Your task to perform on an android device: open app "Spotify: Music and Podcasts" (install if not already installed) and go to login screen Image 0: 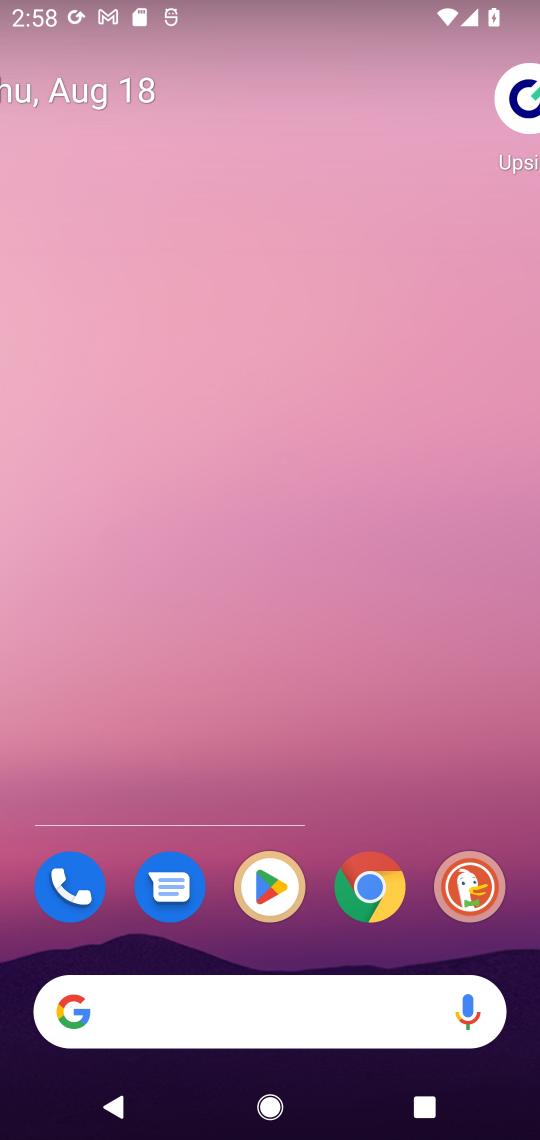
Step 0: press home button
Your task to perform on an android device: open app "Spotify: Music and Podcasts" (install if not already installed) and go to login screen Image 1: 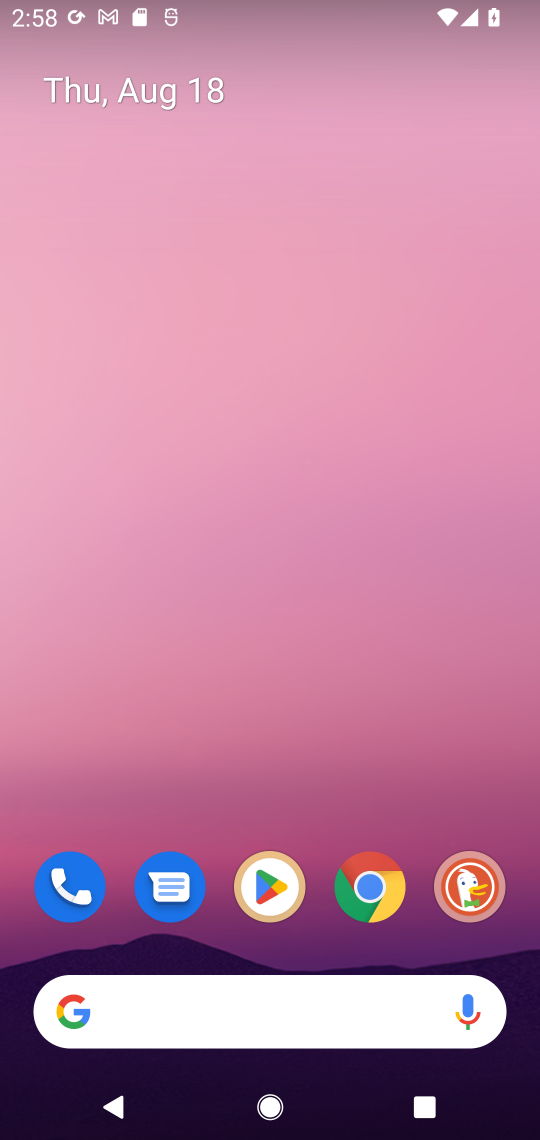
Step 1: press home button
Your task to perform on an android device: open app "Spotify: Music and Podcasts" (install if not already installed) and go to login screen Image 2: 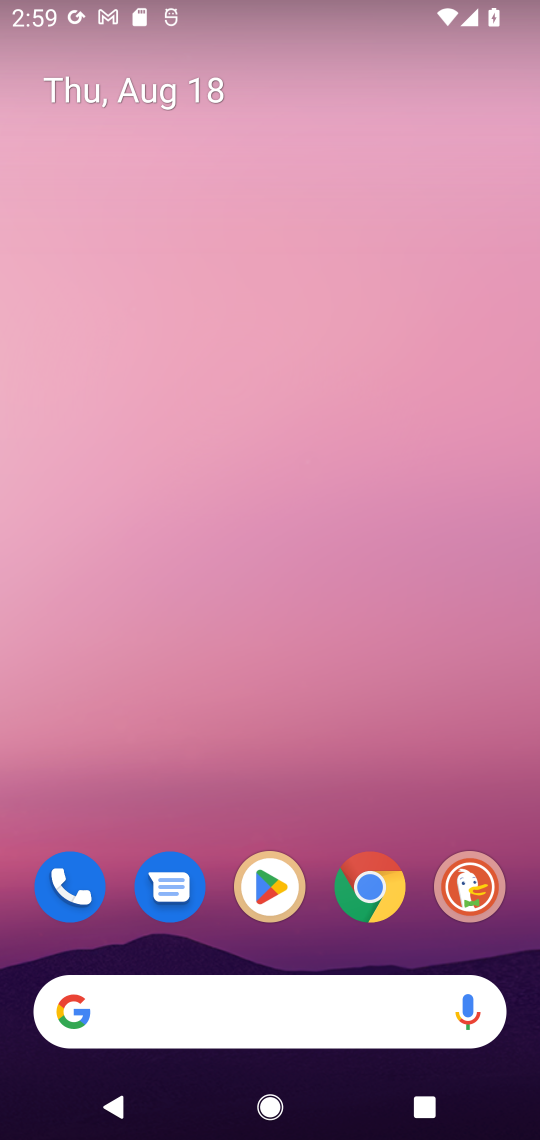
Step 2: drag from (314, 845) to (365, 20)
Your task to perform on an android device: open app "Spotify: Music and Podcasts" (install if not already installed) and go to login screen Image 3: 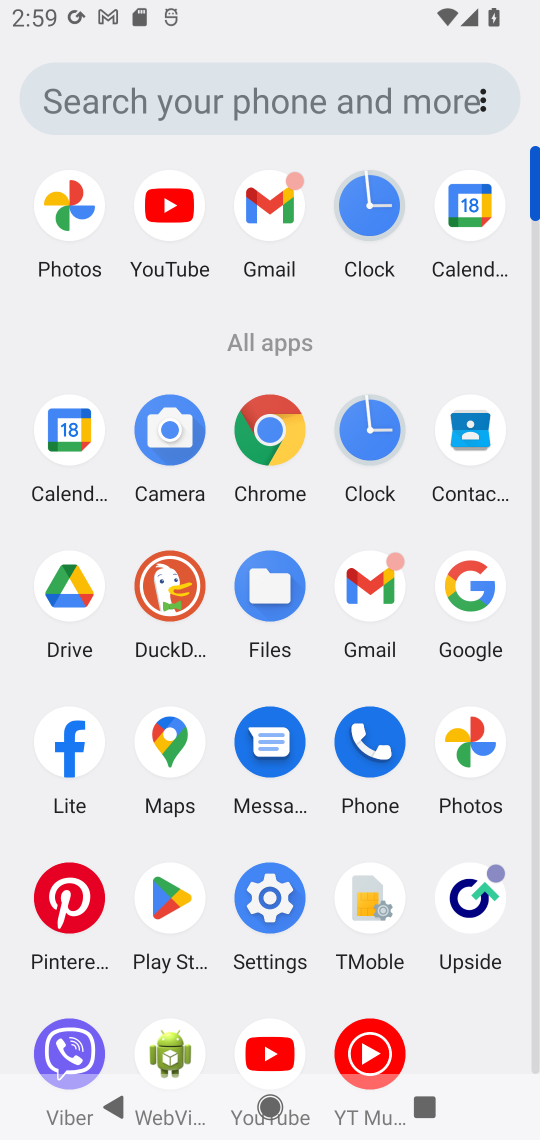
Step 3: click (166, 894)
Your task to perform on an android device: open app "Spotify: Music and Podcasts" (install if not already installed) and go to login screen Image 4: 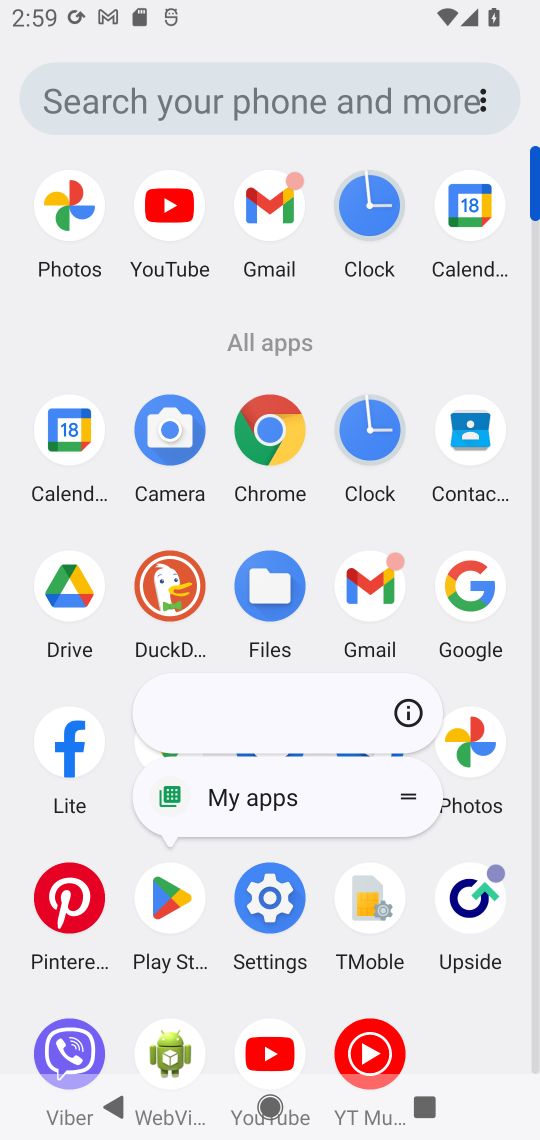
Step 4: click (169, 896)
Your task to perform on an android device: open app "Spotify: Music and Podcasts" (install if not already installed) and go to login screen Image 5: 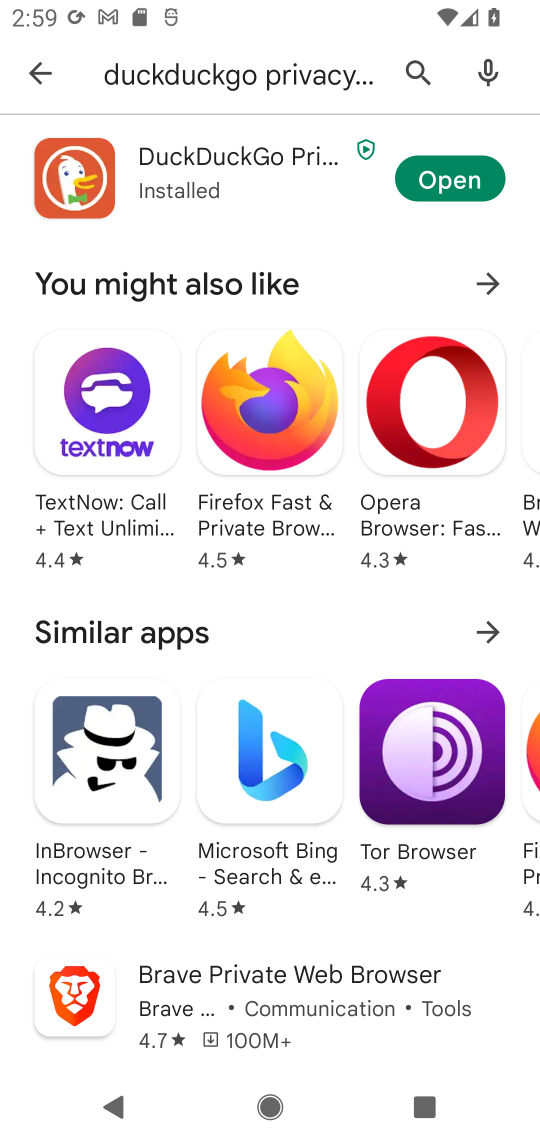
Step 5: click (418, 63)
Your task to perform on an android device: open app "Spotify: Music and Podcasts" (install if not already installed) and go to login screen Image 6: 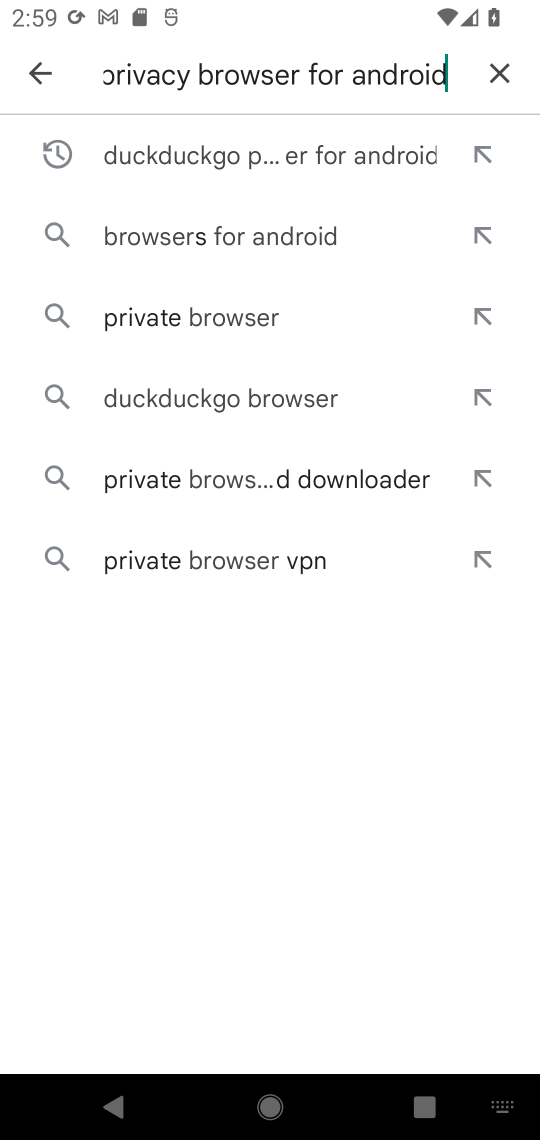
Step 6: click (500, 81)
Your task to perform on an android device: open app "Spotify: Music and Podcasts" (install if not already installed) and go to login screen Image 7: 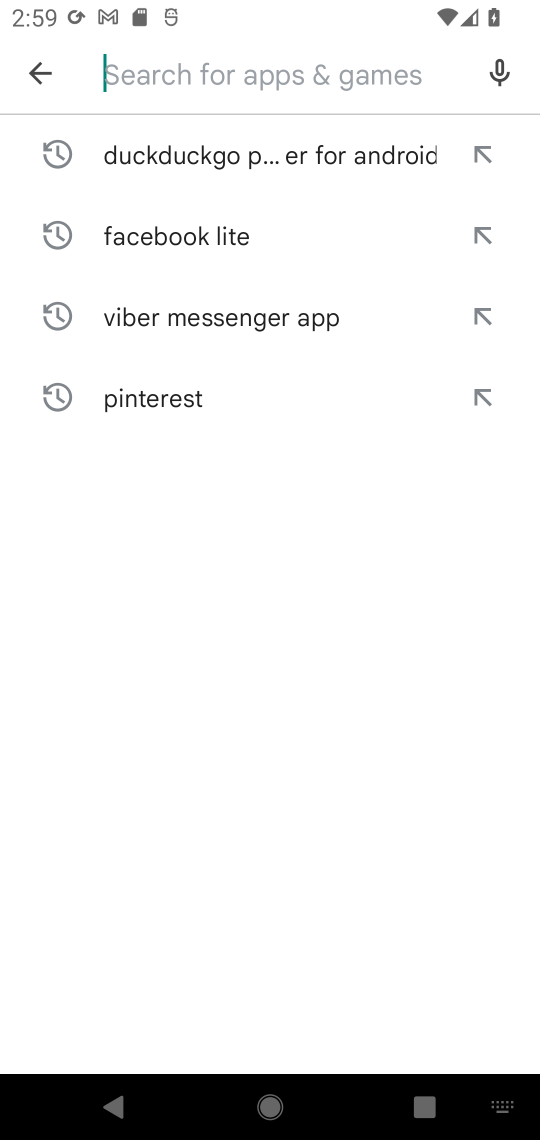
Step 7: type "Spotify: Music and Podcasts"
Your task to perform on an android device: open app "Spotify: Music and Podcasts" (install if not already installed) and go to login screen Image 8: 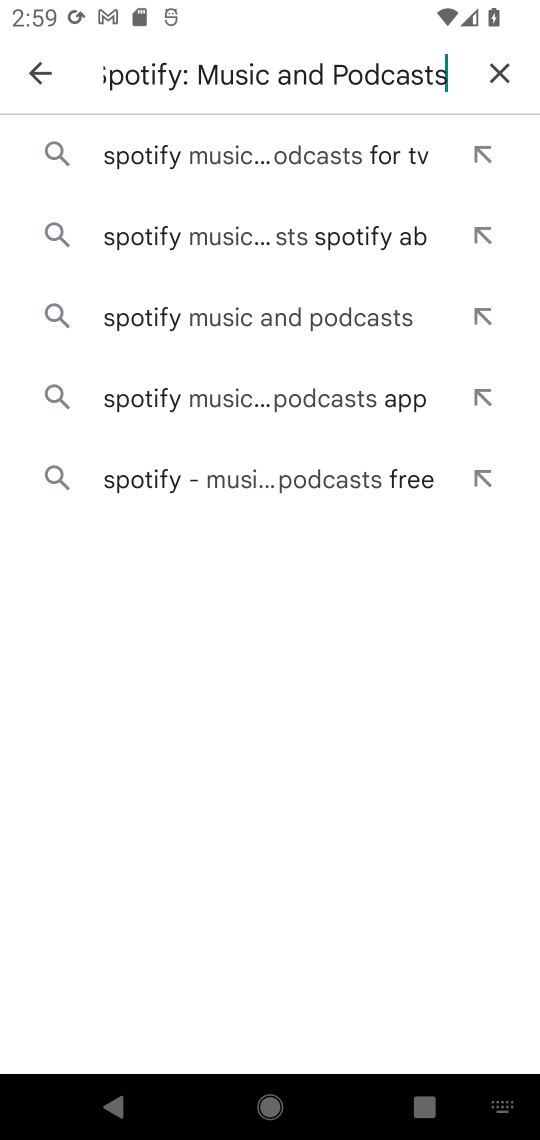
Step 8: click (338, 308)
Your task to perform on an android device: open app "Spotify: Music and Podcasts" (install if not already installed) and go to login screen Image 9: 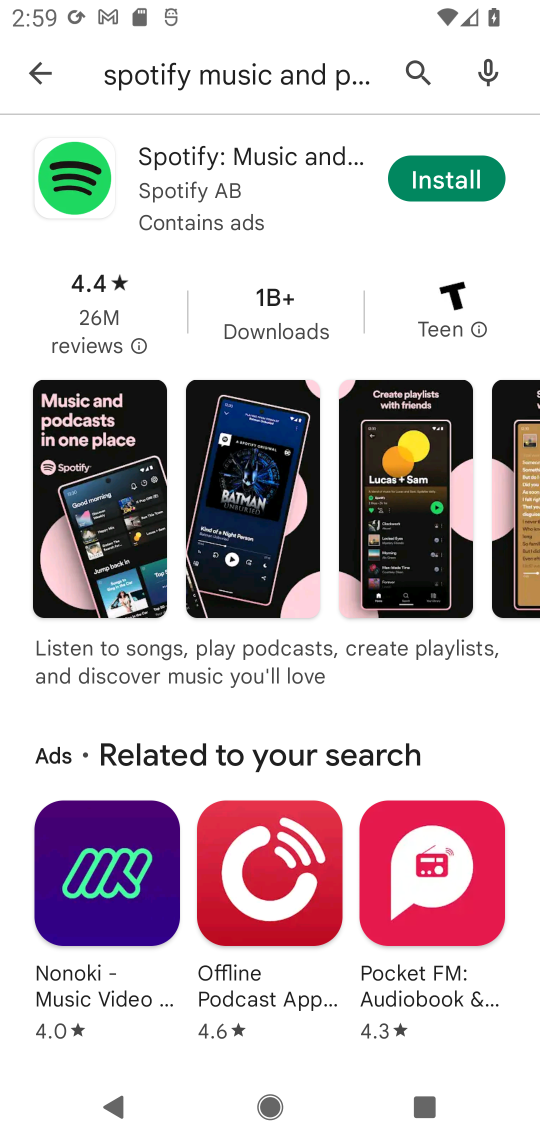
Step 9: click (446, 174)
Your task to perform on an android device: open app "Spotify: Music and Podcasts" (install if not already installed) and go to login screen Image 10: 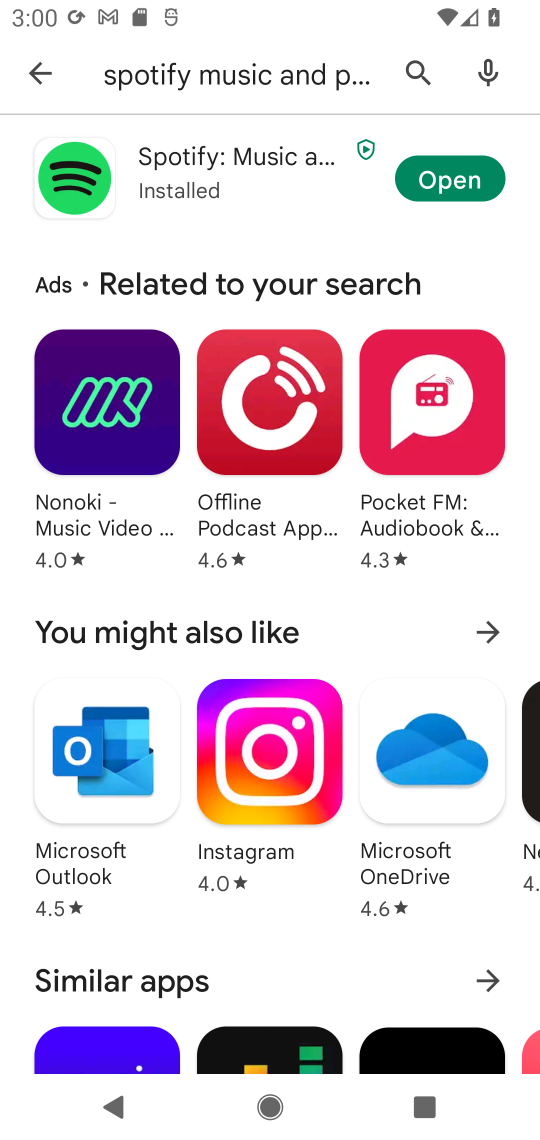
Step 10: click (446, 174)
Your task to perform on an android device: open app "Spotify: Music and Podcasts" (install if not already installed) and go to login screen Image 11: 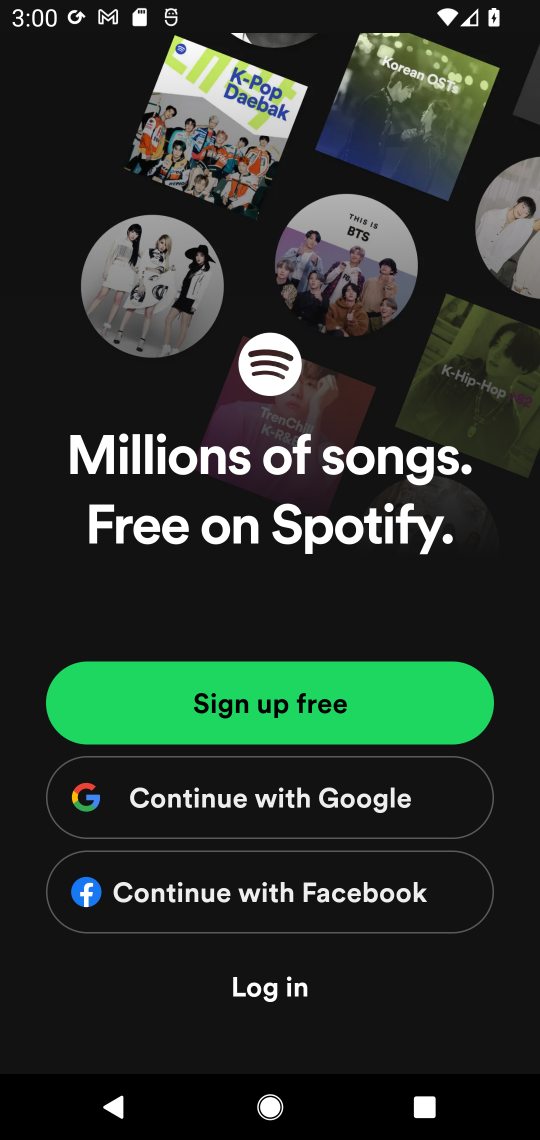
Step 11: click (394, 783)
Your task to perform on an android device: open app "Spotify: Music and Podcasts" (install if not already installed) and go to login screen Image 12: 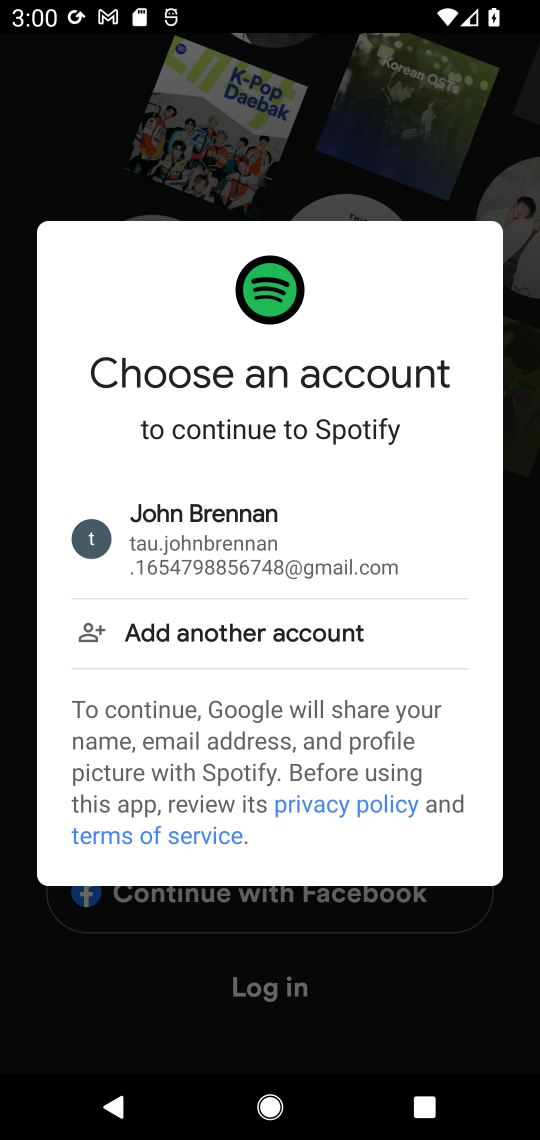
Step 12: click (169, 541)
Your task to perform on an android device: open app "Spotify: Music and Podcasts" (install if not already installed) and go to login screen Image 13: 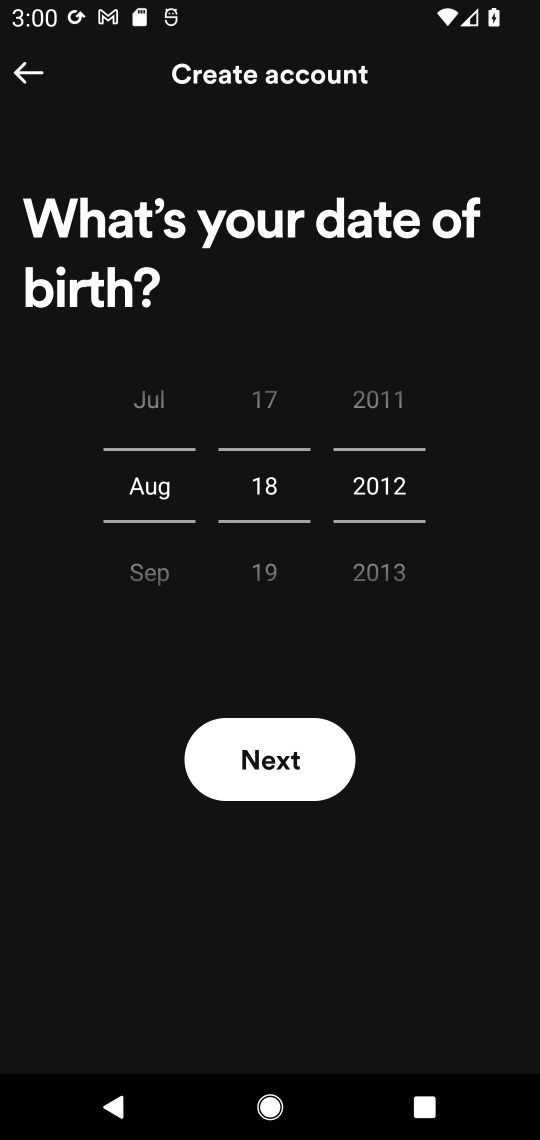
Step 13: drag from (154, 430) to (163, 581)
Your task to perform on an android device: open app "Spotify: Music and Podcasts" (install if not already installed) and go to login screen Image 14: 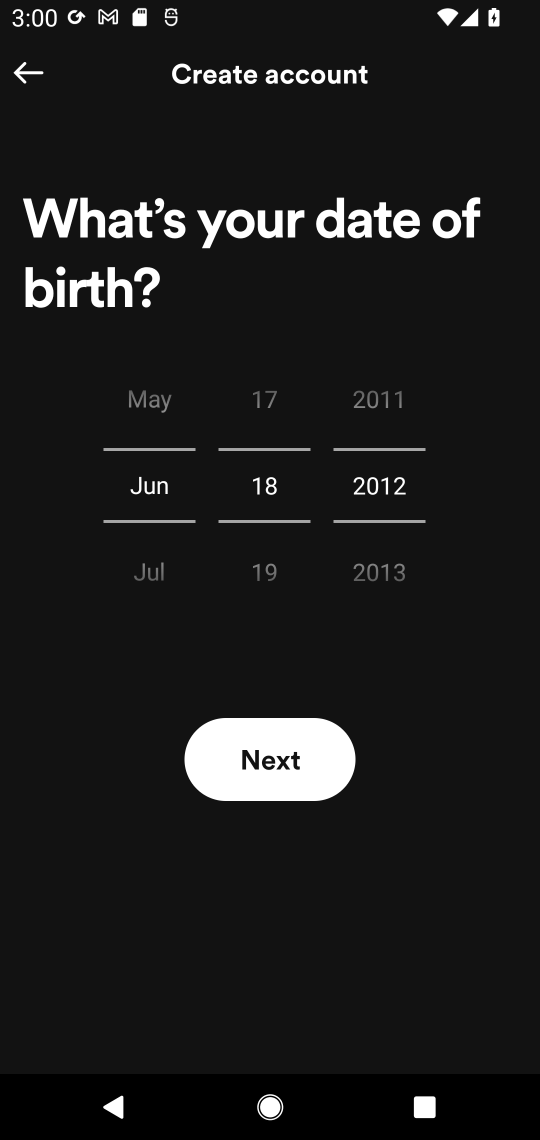
Step 14: drag from (387, 434) to (392, 784)
Your task to perform on an android device: open app "Spotify: Music and Podcasts" (install if not already installed) and go to login screen Image 15: 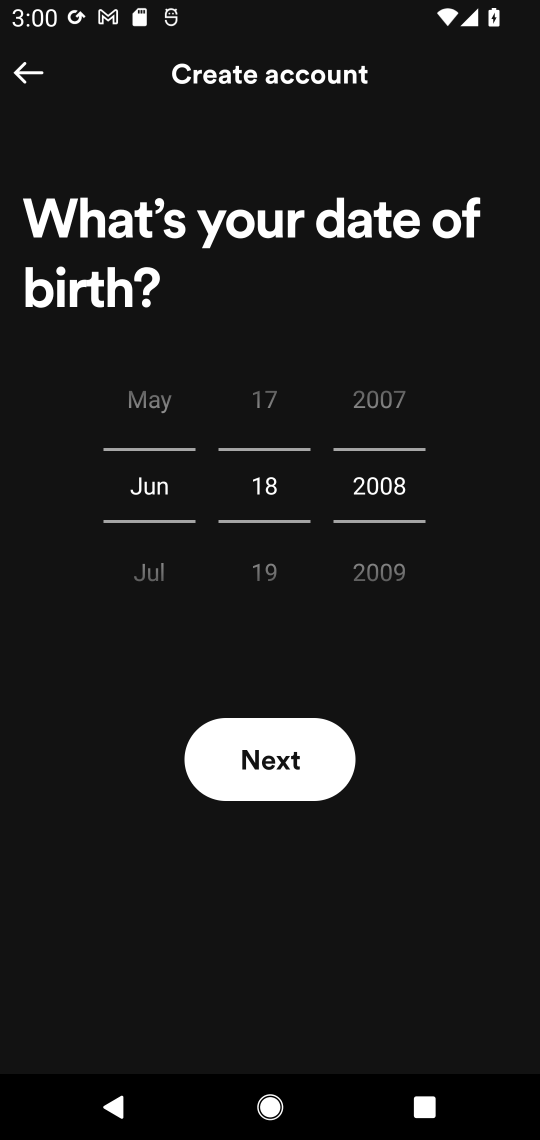
Step 15: drag from (372, 408) to (393, 787)
Your task to perform on an android device: open app "Spotify: Music and Podcasts" (install if not already installed) and go to login screen Image 16: 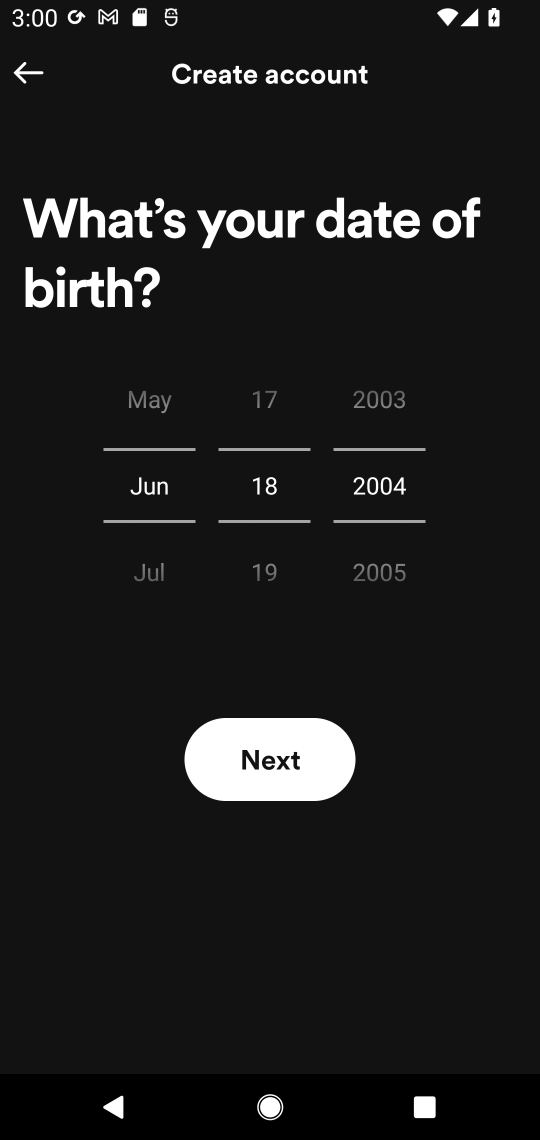
Step 16: drag from (368, 380) to (431, 1121)
Your task to perform on an android device: open app "Spotify: Music and Podcasts" (install if not already installed) and go to login screen Image 17: 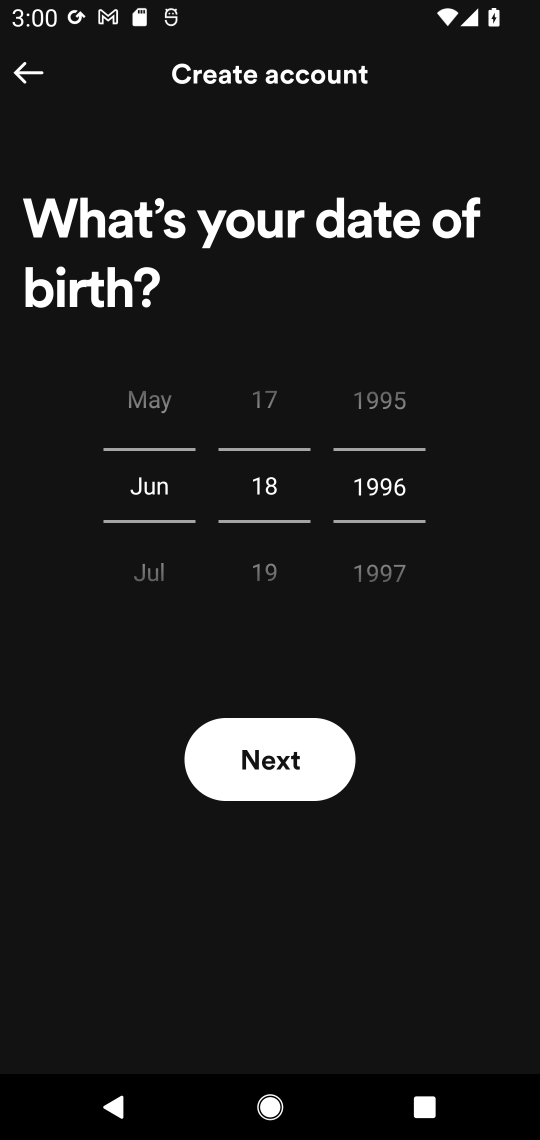
Step 17: click (239, 759)
Your task to perform on an android device: open app "Spotify: Music and Podcasts" (install if not already installed) and go to login screen Image 18: 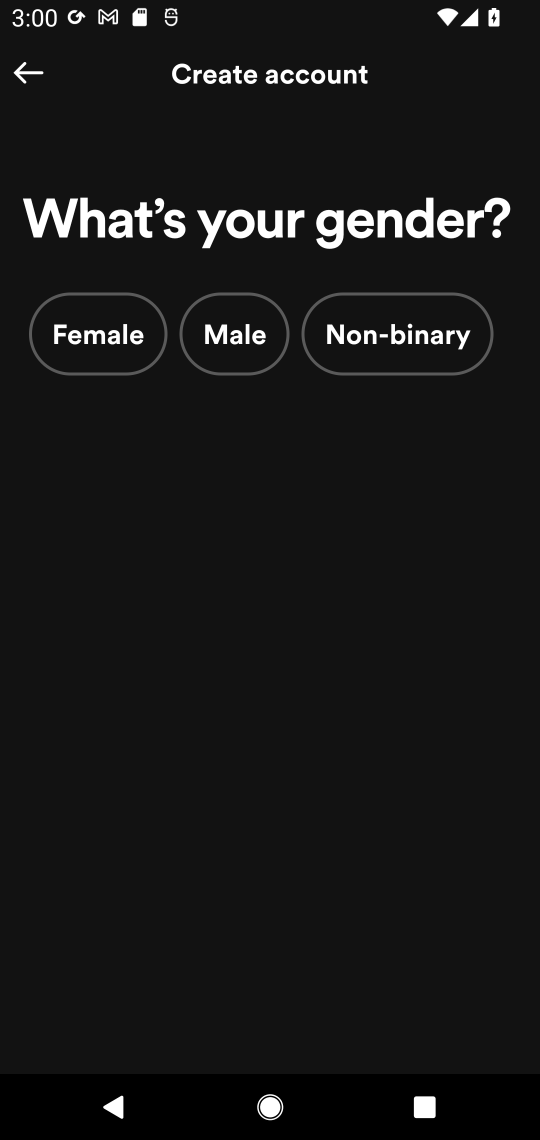
Step 18: click (241, 344)
Your task to perform on an android device: open app "Spotify: Music and Podcasts" (install if not already installed) and go to login screen Image 19: 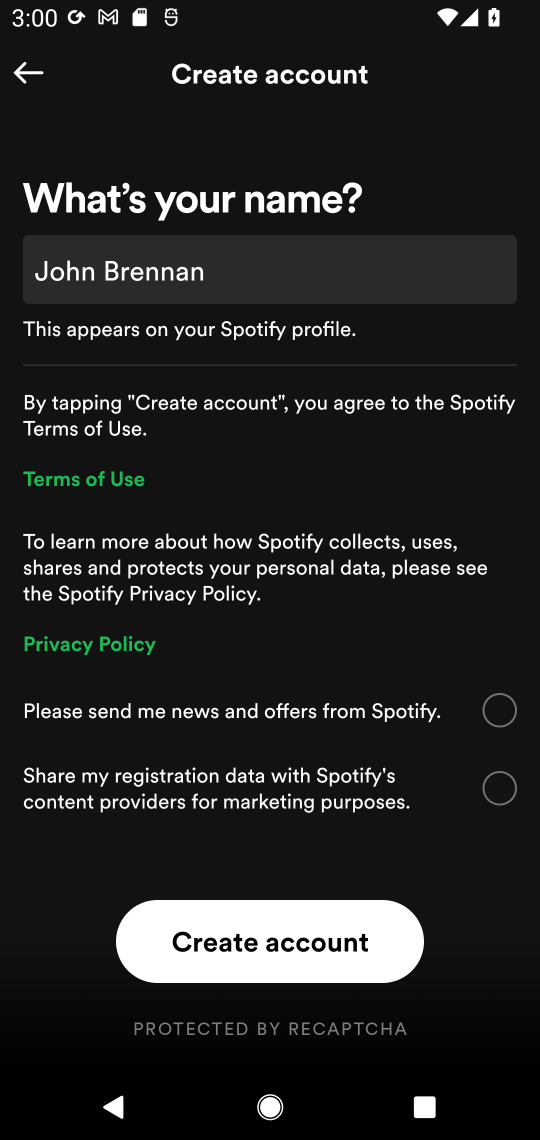
Step 19: click (296, 966)
Your task to perform on an android device: open app "Spotify: Music and Podcasts" (install if not already installed) and go to login screen Image 20: 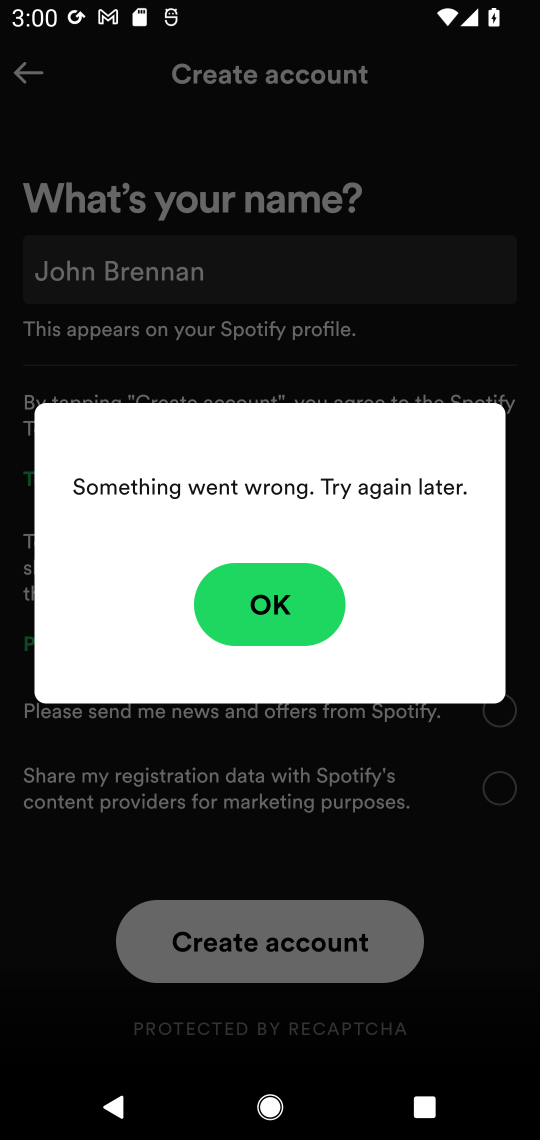
Step 20: click (265, 632)
Your task to perform on an android device: open app "Spotify: Music and Podcasts" (install if not already installed) and go to login screen Image 21: 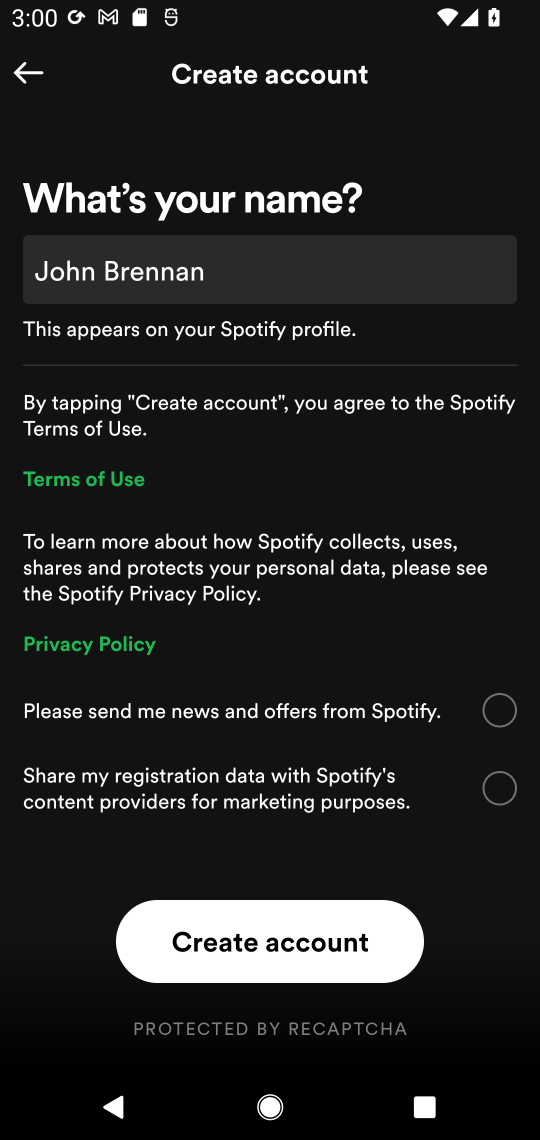
Step 21: task complete